Your task to perform on an android device: Empty the shopping cart on walmart. Search for razer huntsman on walmart, select the first entry, add it to the cart, then select checkout. Image 0: 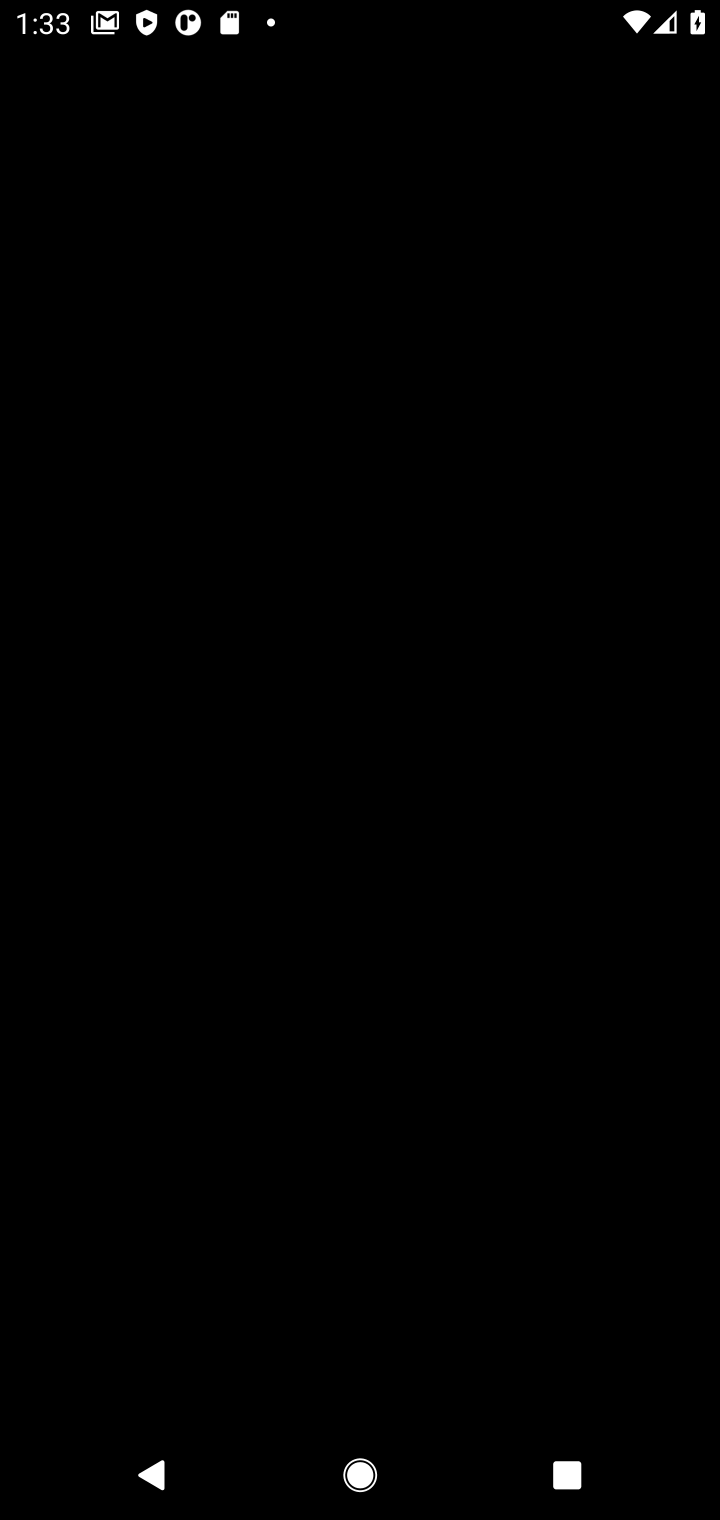
Step 0: press home button
Your task to perform on an android device: Empty the shopping cart on walmart. Search for razer huntsman on walmart, select the first entry, add it to the cart, then select checkout. Image 1: 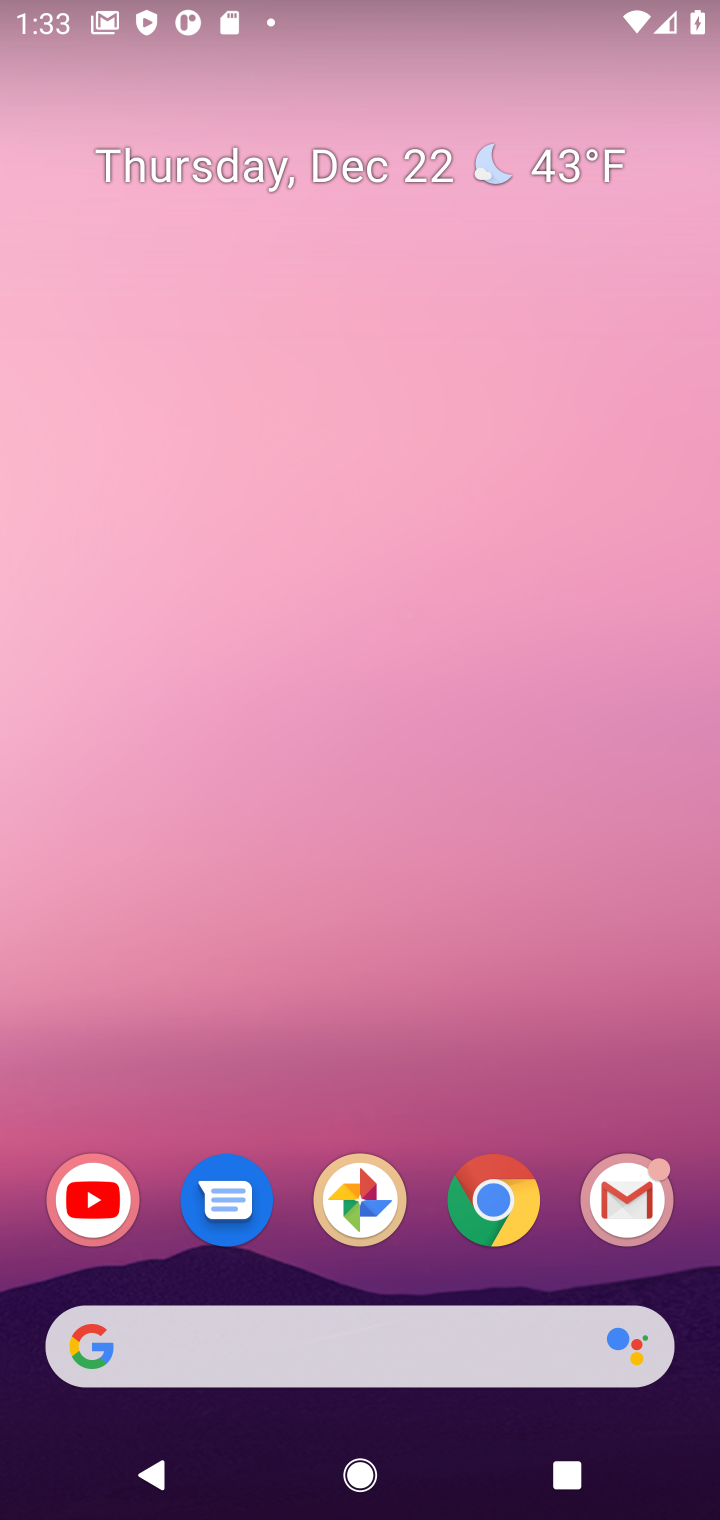
Step 1: click (490, 1210)
Your task to perform on an android device: Empty the shopping cart on walmart. Search for razer huntsman on walmart, select the first entry, add it to the cart, then select checkout. Image 2: 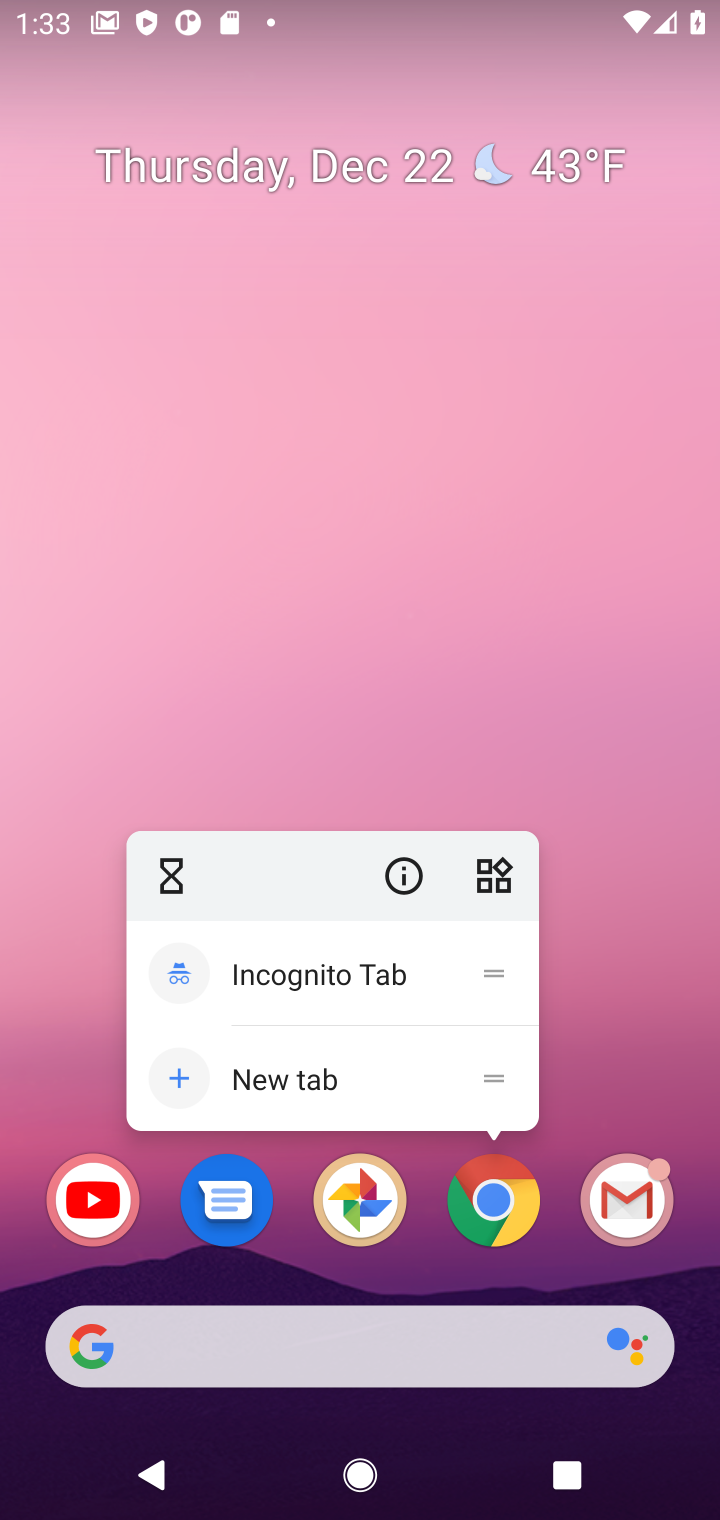
Step 2: click (490, 1210)
Your task to perform on an android device: Empty the shopping cart on walmart. Search for razer huntsman on walmart, select the first entry, add it to the cart, then select checkout. Image 3: 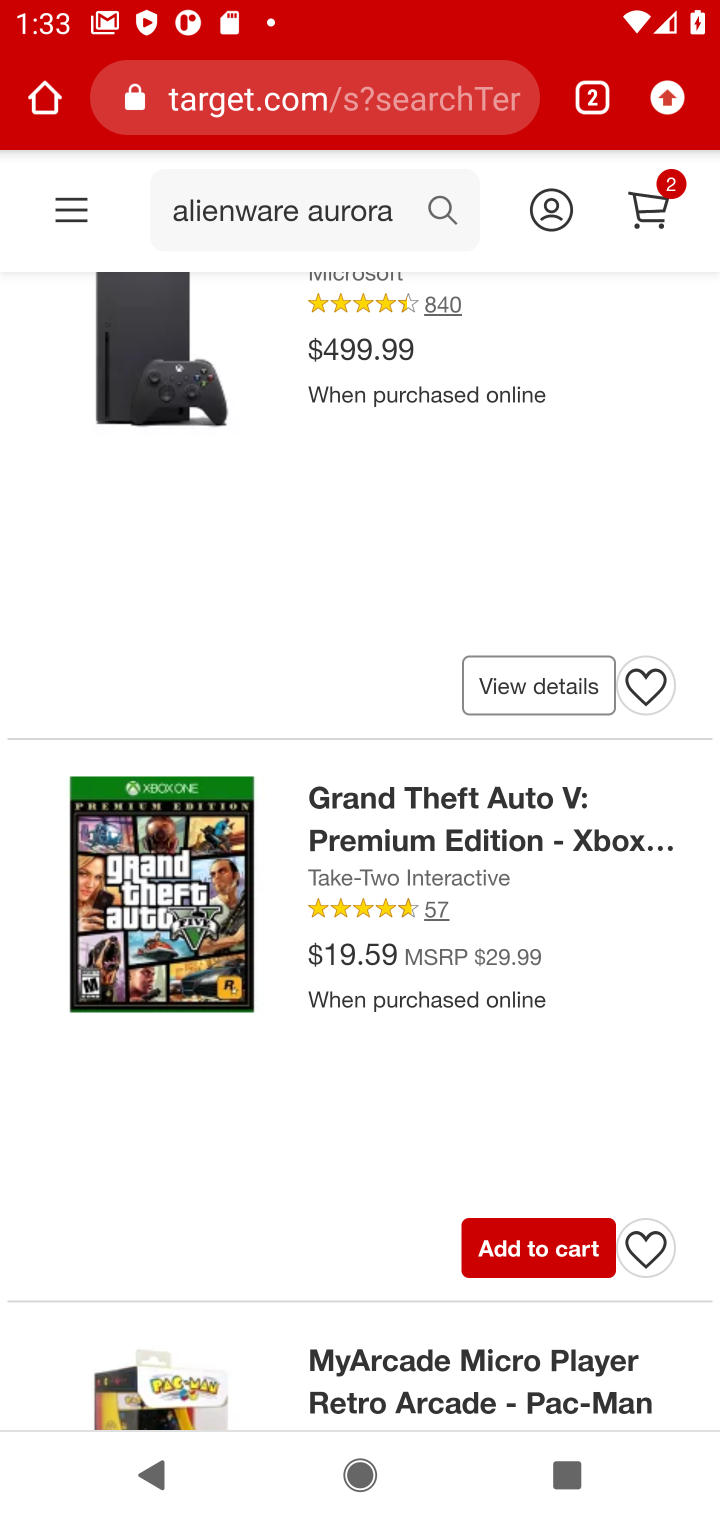
Step 3: click (259, 98)
Your task to perform on an android device: Empty the shopping cart on walmart. Search for razer huntsman on walmart, select the first entry, add it to the cart, then select checkout. Image 4: 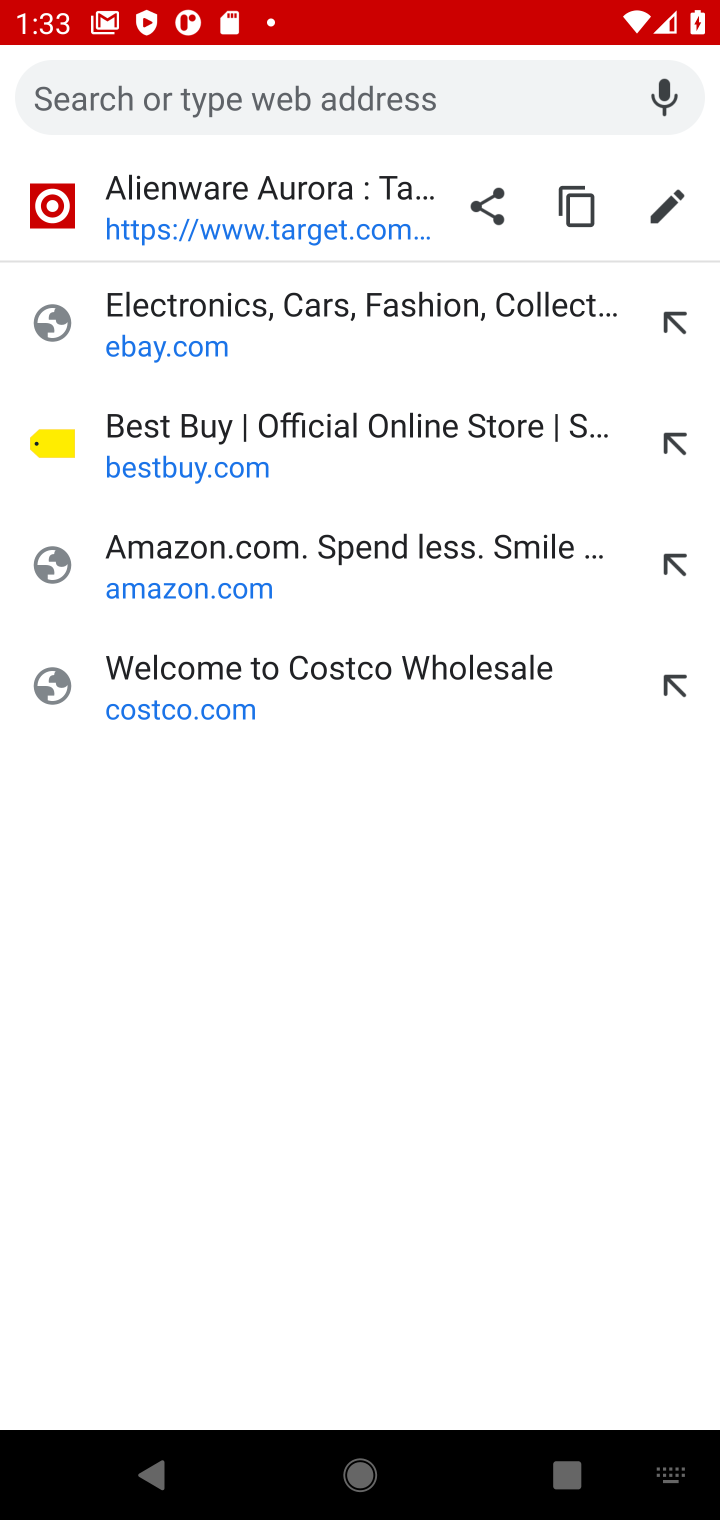
Step 4: type "walmart.com"
Your task to perform on an android device: Empty the shopping cart on walmart. Search for razer huntsman on walmart, select the first entry, add it to the cart, then select checkout. Image 5: 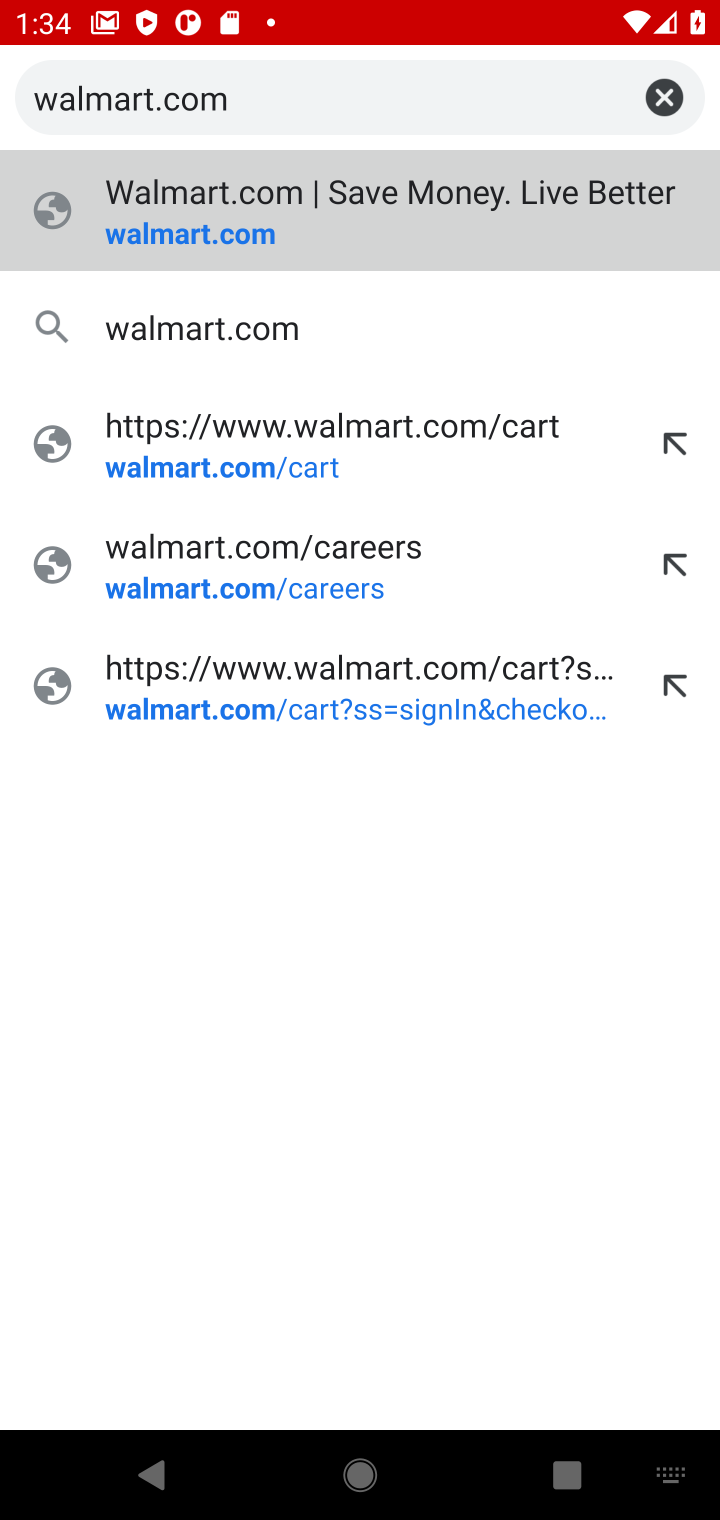
Step 5: click (212, 249)
Your task to perform on an android device: Empty the shopping cart on walmart. Search for razer huntsman on walmart, select the first entry, add it to the cart, then select checkout. Image 6: 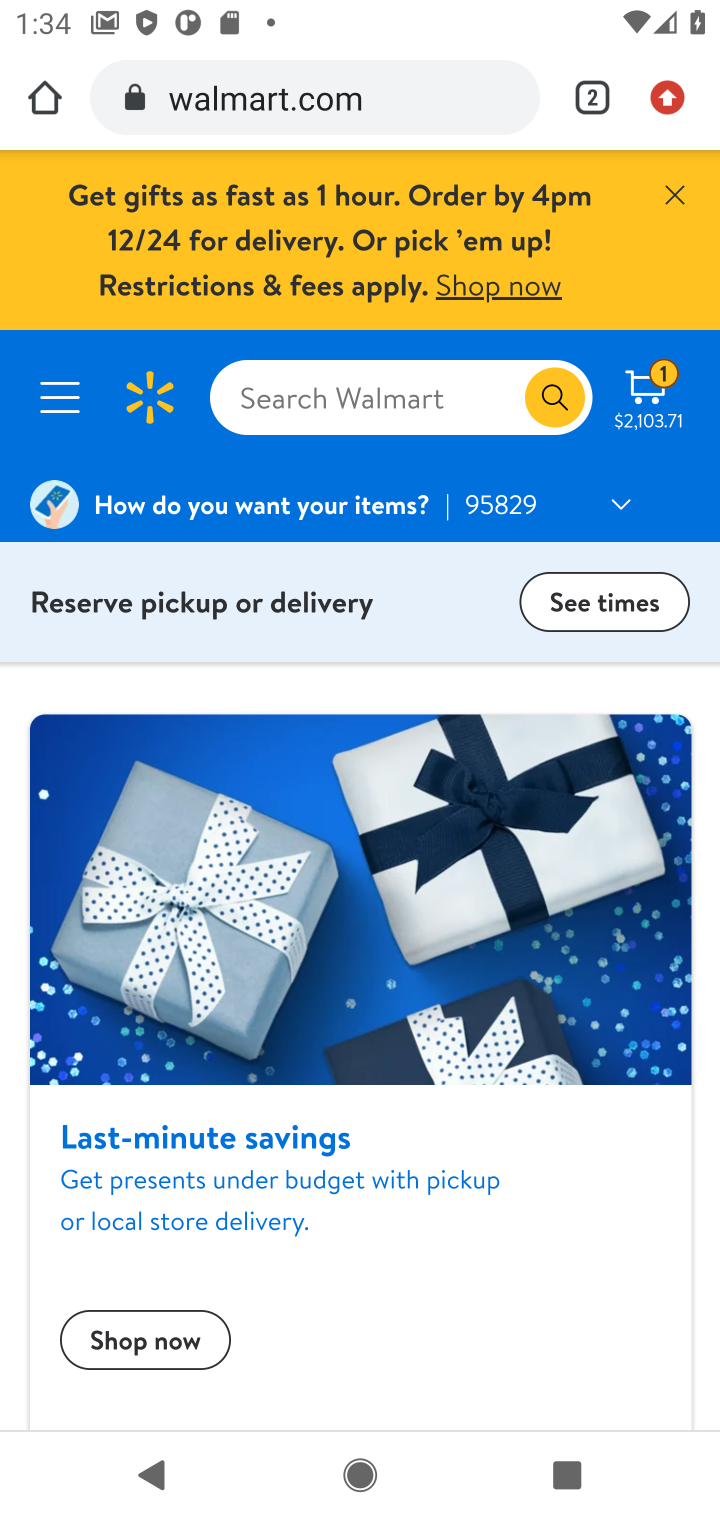
Step 6: click (646, 410)
Your task to perform on an android device: Empty the shopping cart on walmart. Search for razer huntsman on walmart, select the first entry, add it to the cart, then select checkout. Image 7: 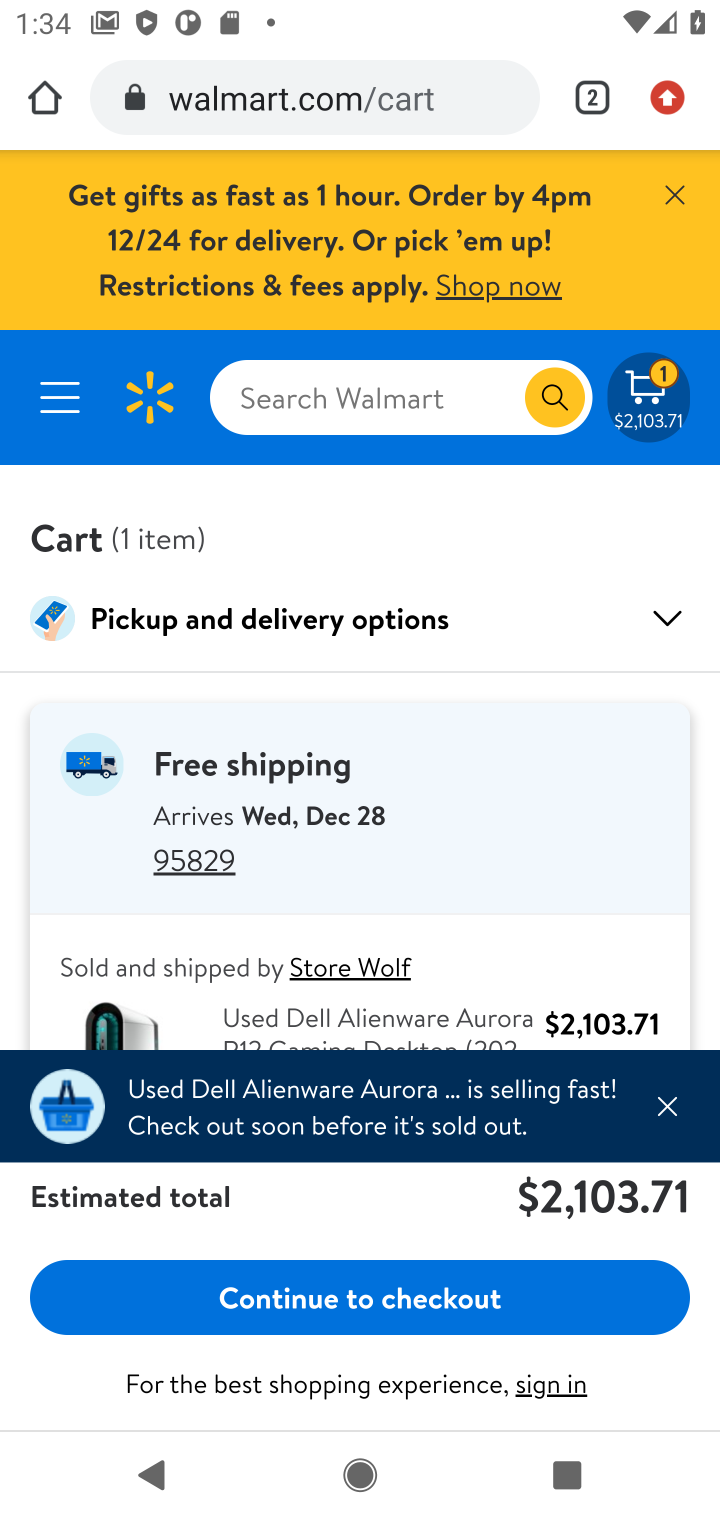
Step 7: drag from (317, 918) to (341, 407)
Your task to perform on an android device: Empty the shopping cart on walmart. Search for razer huntsman on walmart, select the first entry, add it to the cart, then select checkout. Image 8: 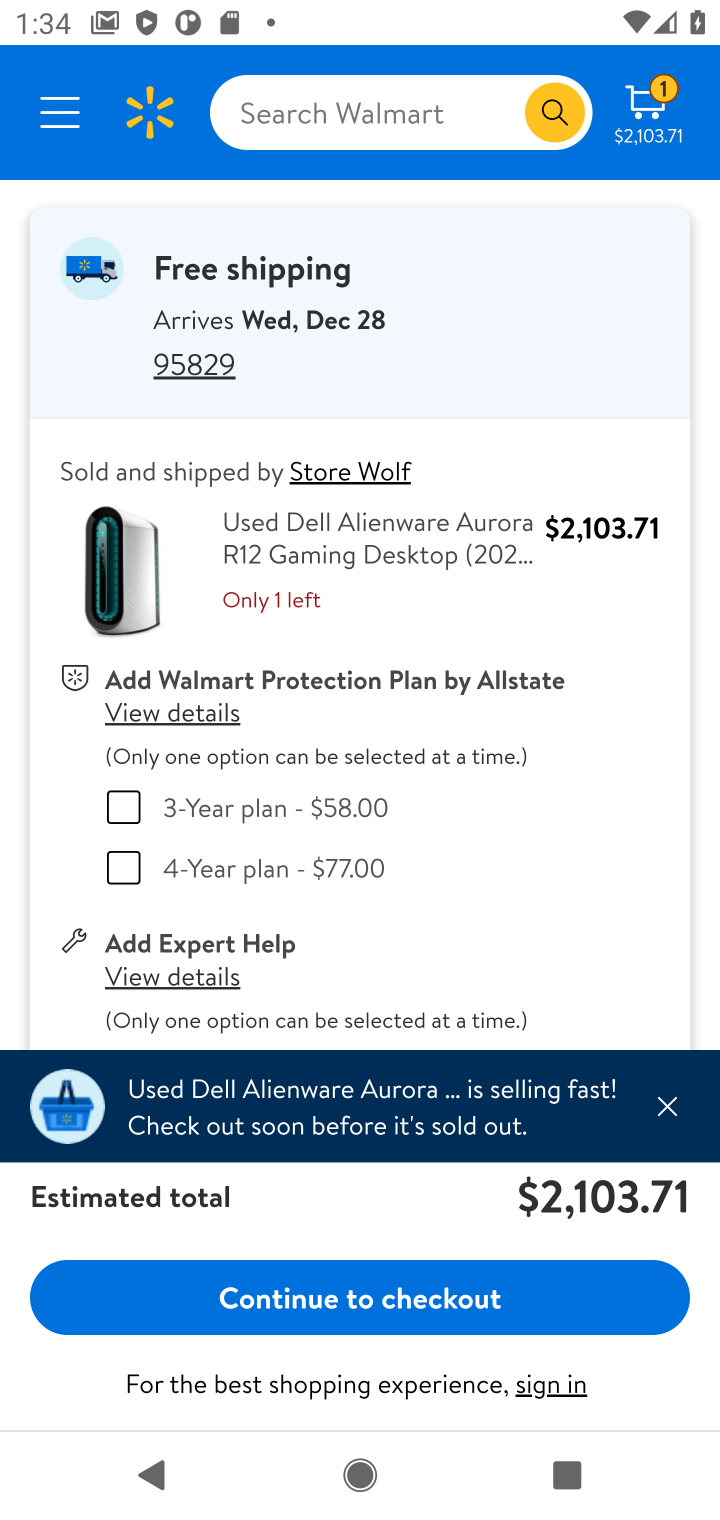
Step 8: click (668, 1105)
Your task to perform on an android device: Empty the shopping cart on walmart. Search for razer huntsman on walmart, select the first entry, add it to the cart, then select checkout. Image 9: 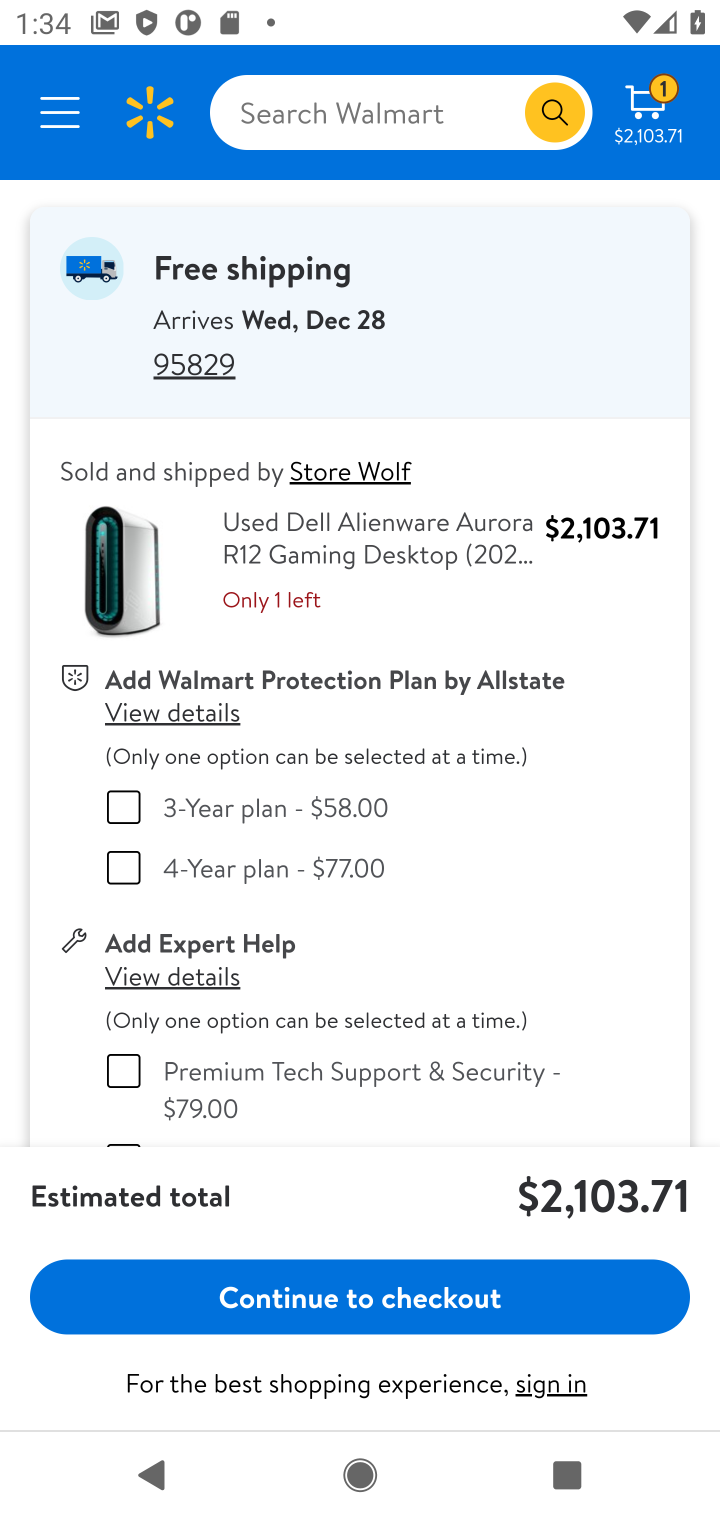
Step 9: drag from (284, 967) to (297, 648)
Your task to perform on an android device: Empty the shopping cart on walmart. Search for razer huntsman on walmart, select the first entry, add it to the cart, then select checkout. Image 10: 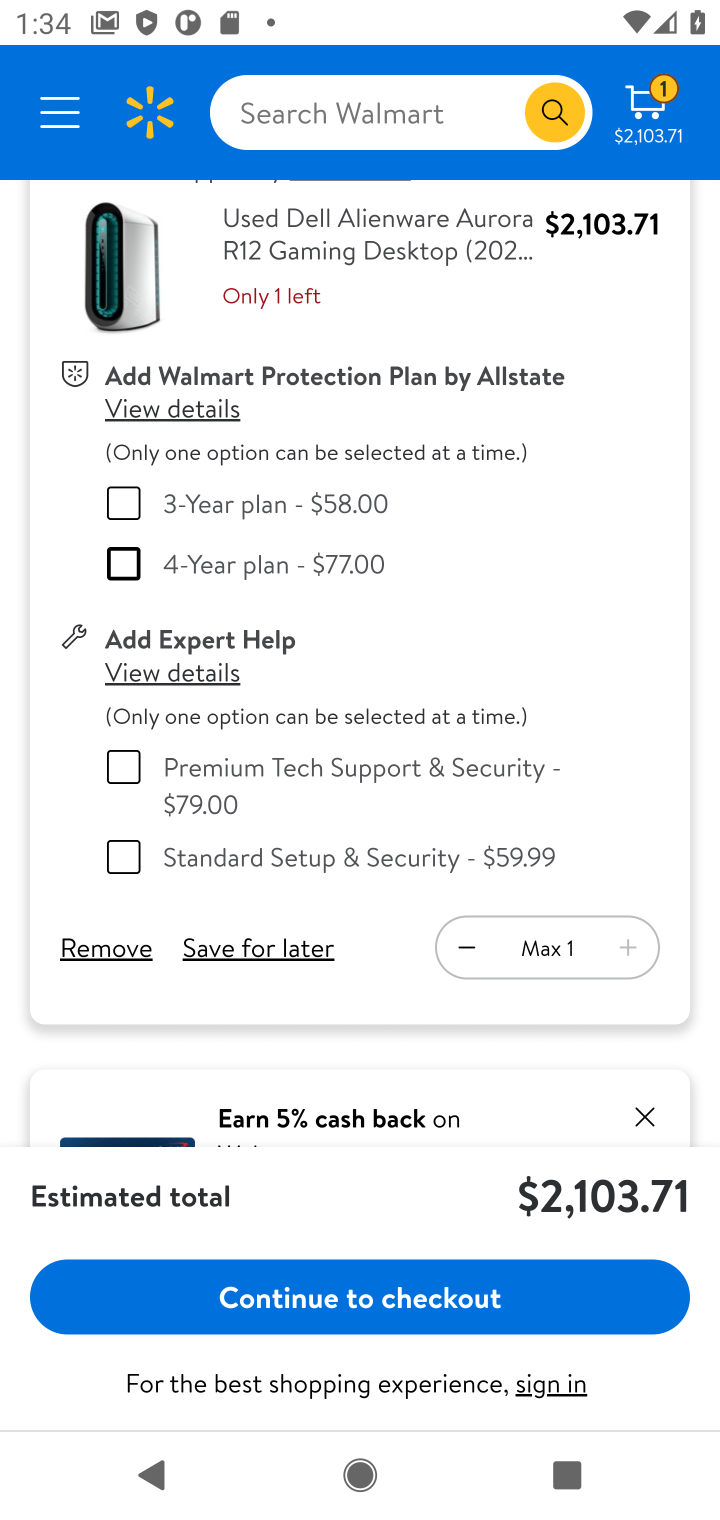
Step 10: click (102, 955)
Your task to perform on an android device: Empty the shopping cart on walmart. Search for razer huntsman on walmart, select the first entry, add it to the cart, then select checkout. Image 11: 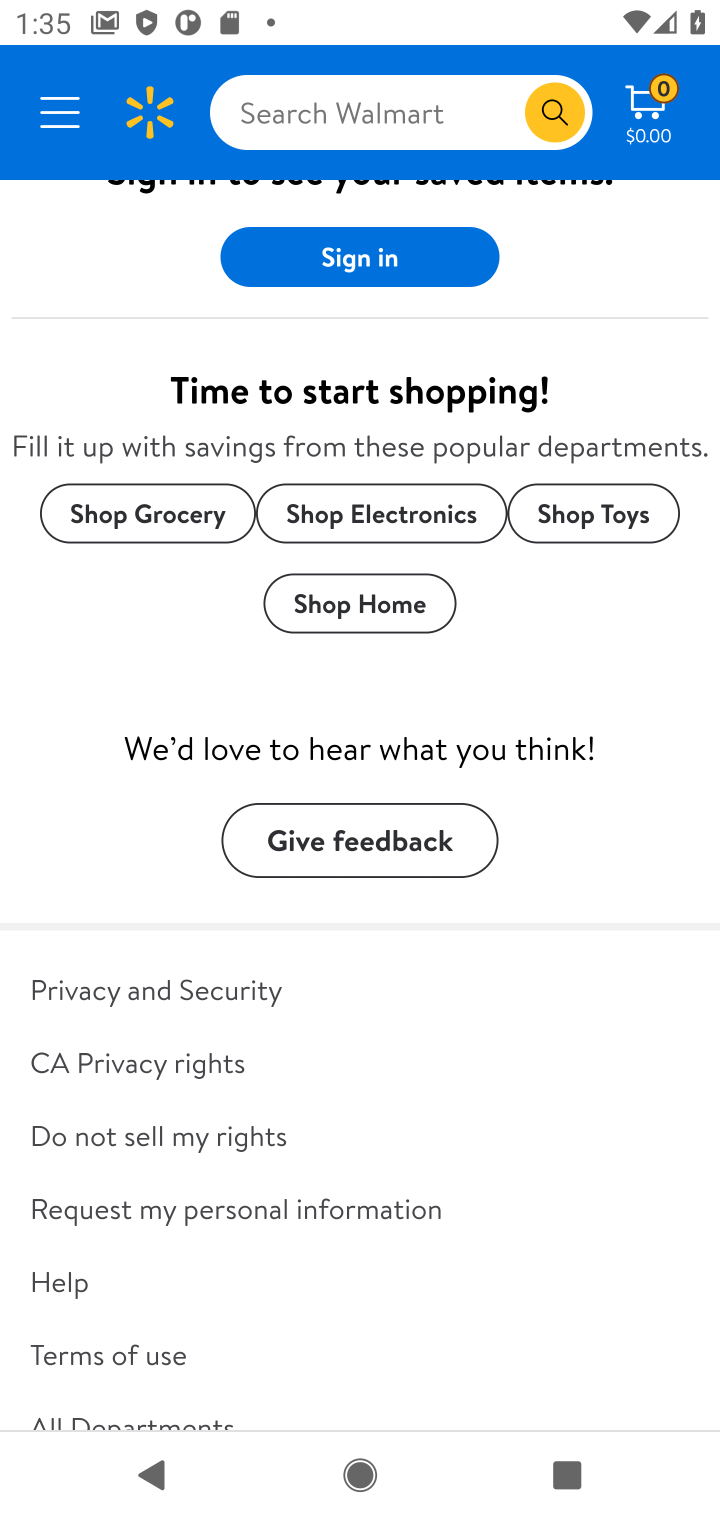
Step 11: drag from (552, 739) to (591, 1088)
Your task to perform on an android device: Empty the shopping cart on walmart. Search for razer huntsman on walmart, select the first entry, add it to the cart, then select checkout. Image 12: 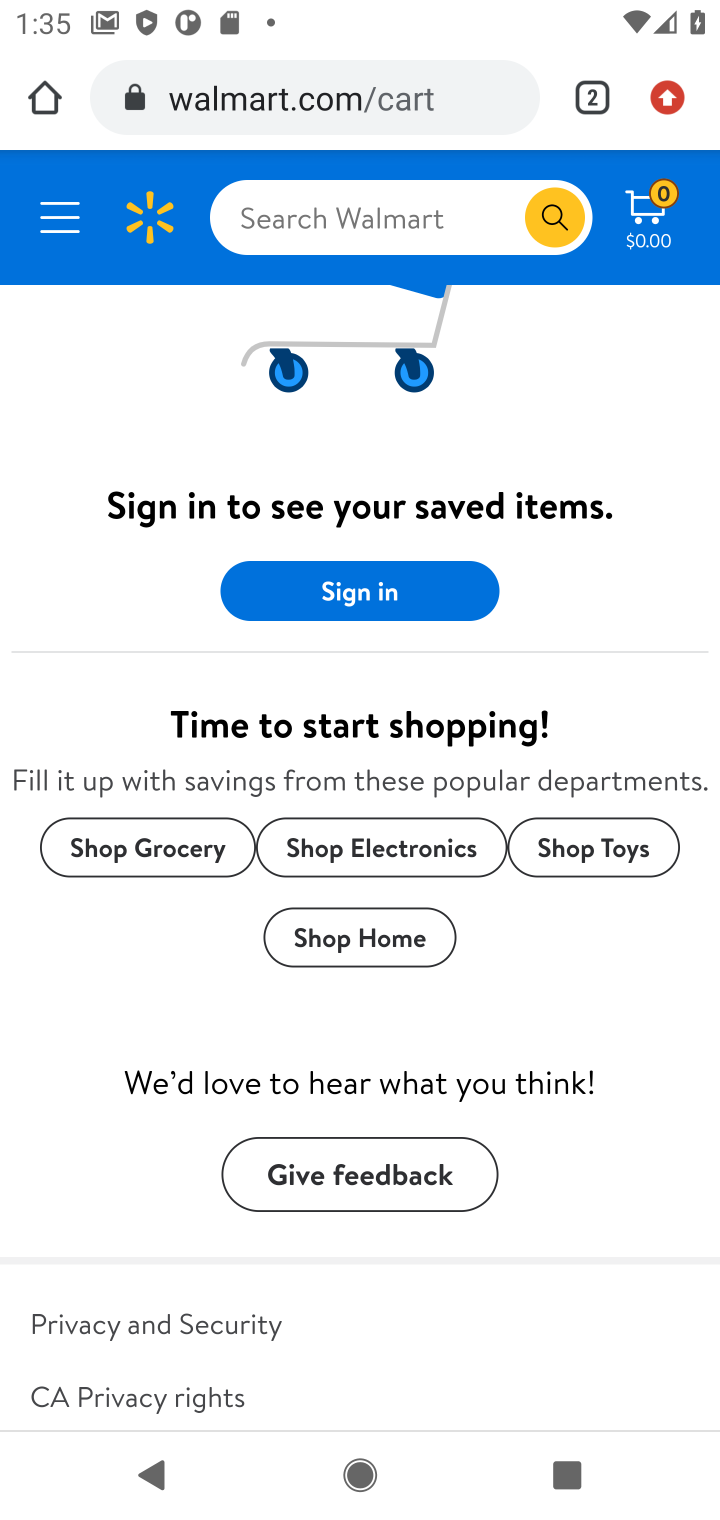
Step 12: click (301, 220)
Your task to perform on an android device: Empty the shopping cart on walmart. Search for razer huntsman on walmart, select the first entry, add it to the cart, then select checkout. Image 13: 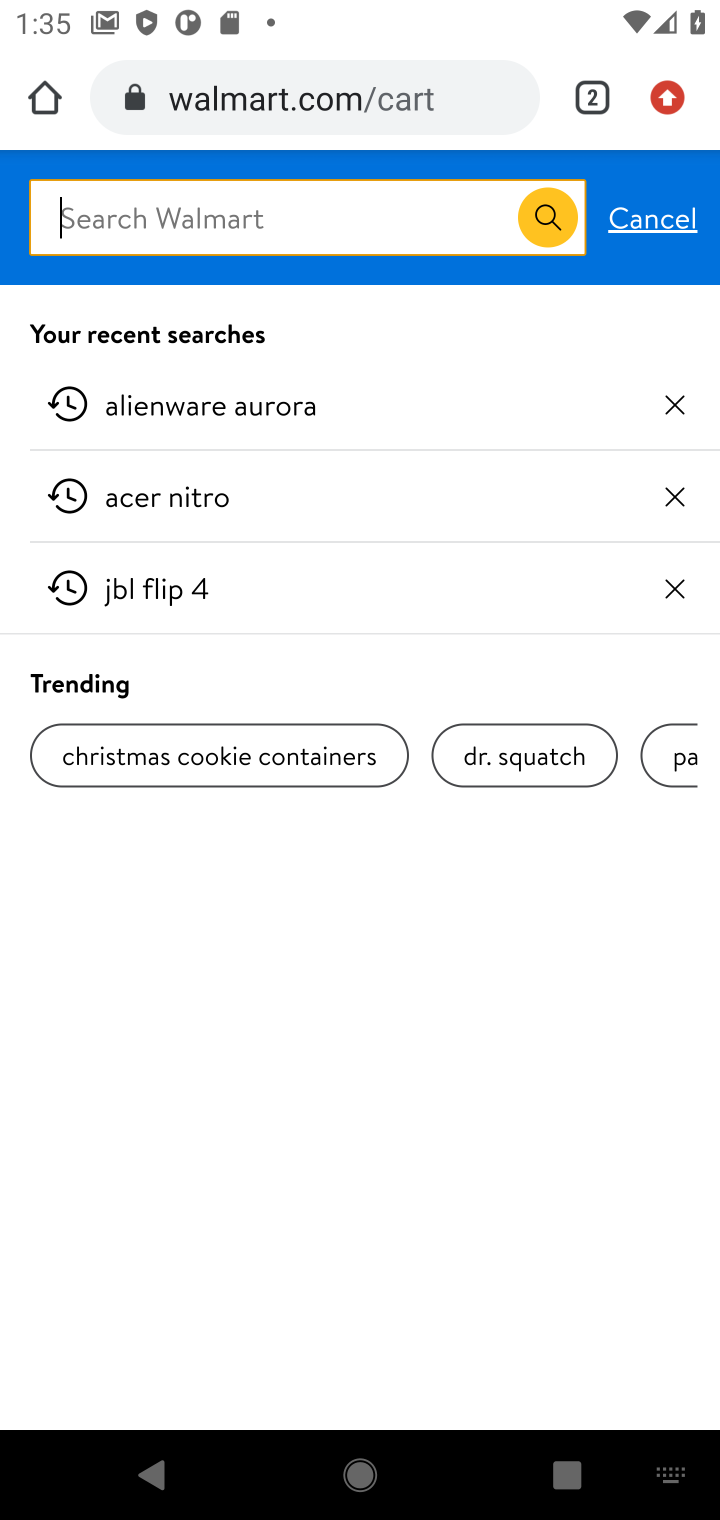
Step 13: type "razer huntsman"
Your task to perform on an android device: Empty the shopping cart on walmart. Search for razer huntsman on walmart, select the first entry, add it to the cart, then select checkout. Image 14: 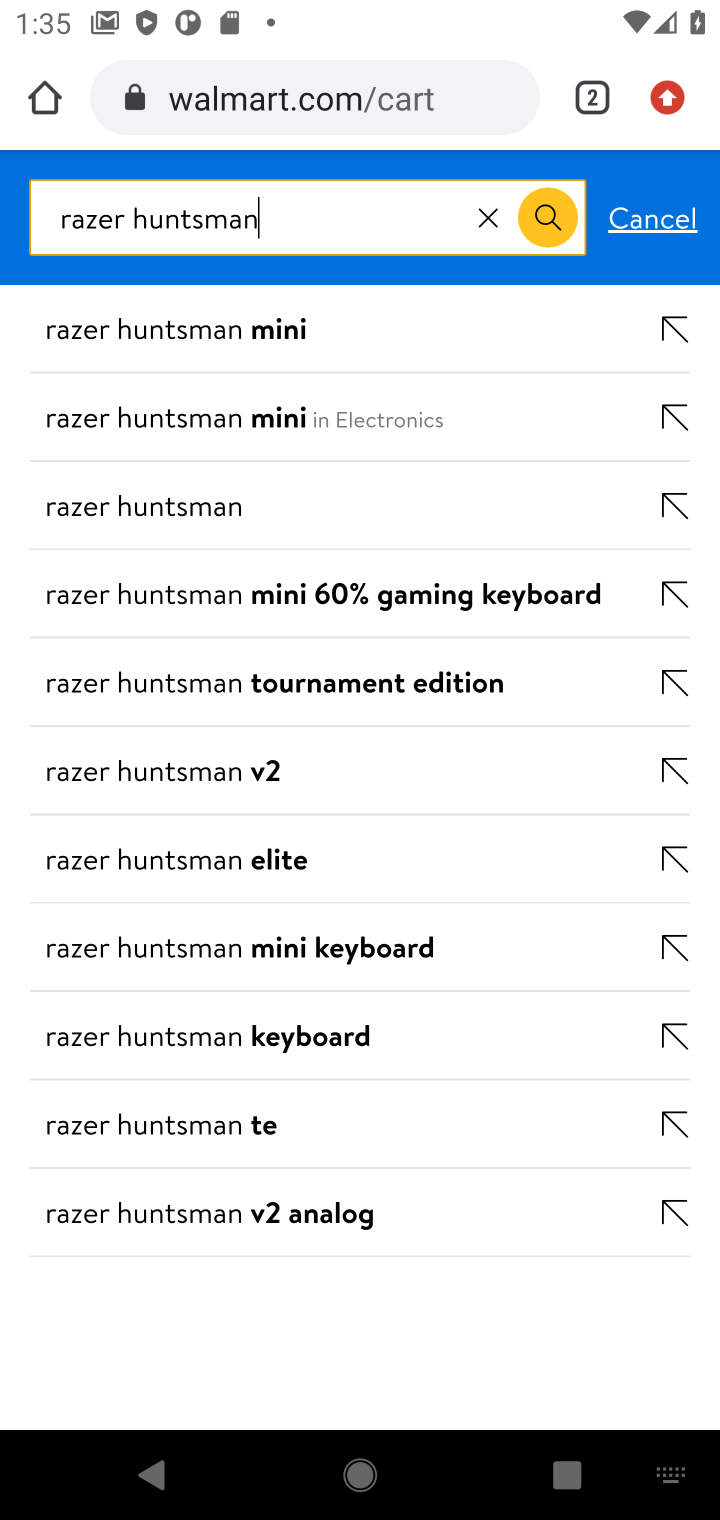
Step 14: click (124, 512)
Your task to perform on an android device: Empty the shopping cart on walmart. Search for razer huntsman on walmart, select the first entry, add it to the cart, then select checkout. Image 15: 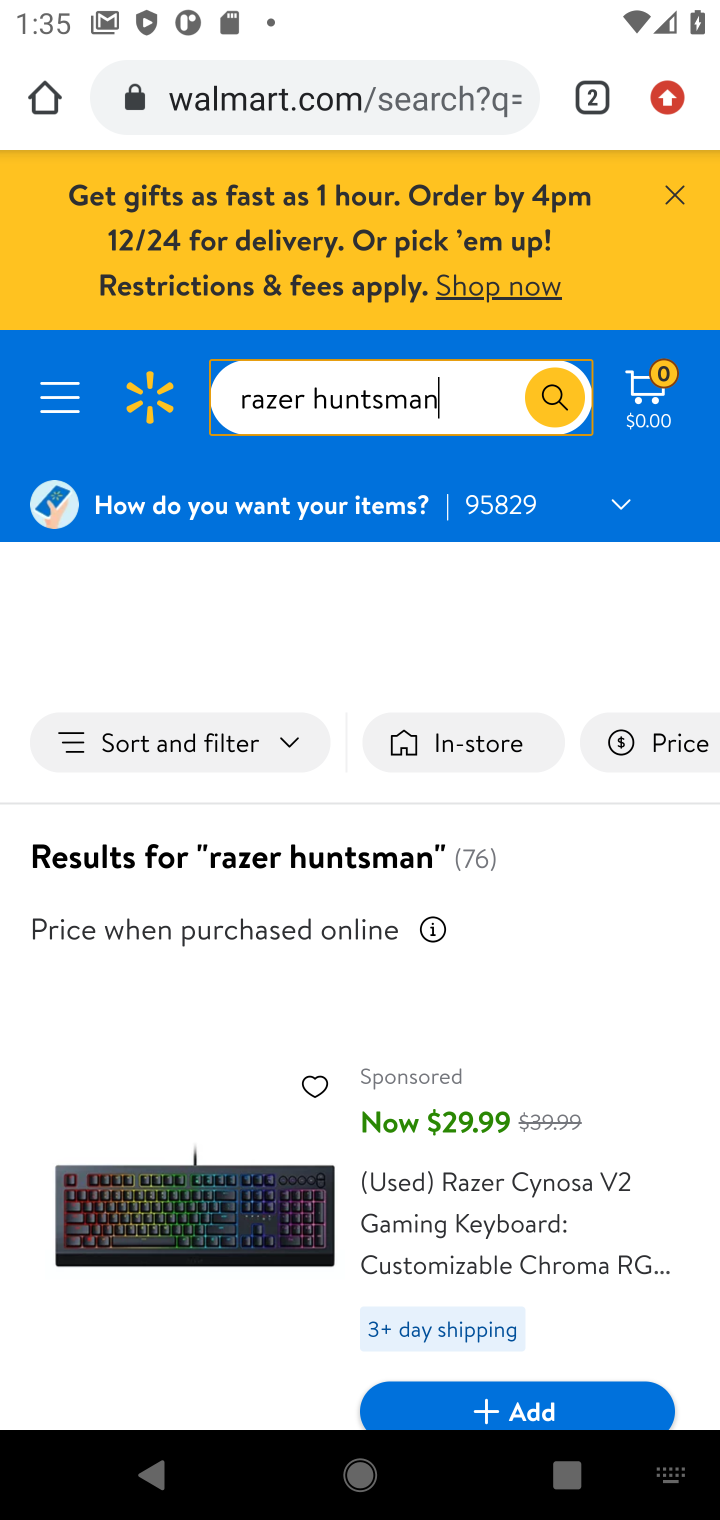
Step 15: task complete